Your task to perform on an android device: change the clock display to analog Image 0: 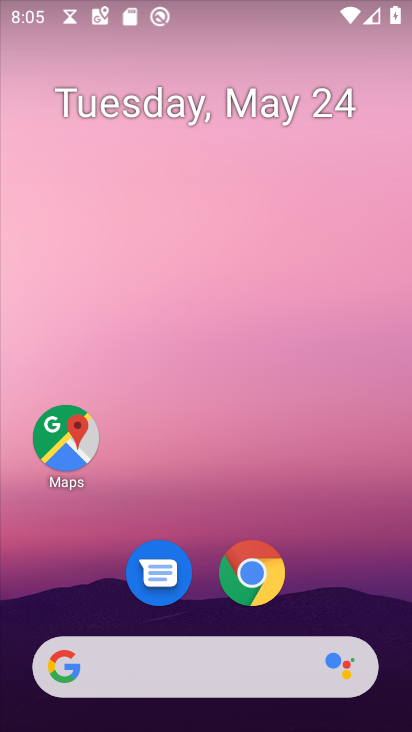
Step 0: drag from (385, 529) to (346, 101)
Your task to perform on an android device: change the clock display to analog Image 1: 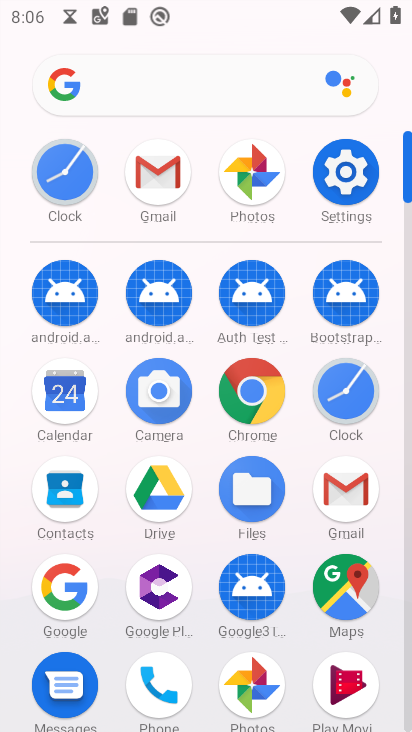
Step 1: click (352, 401)
Your task to perform on an android device: change the clock display to analog Image 2: 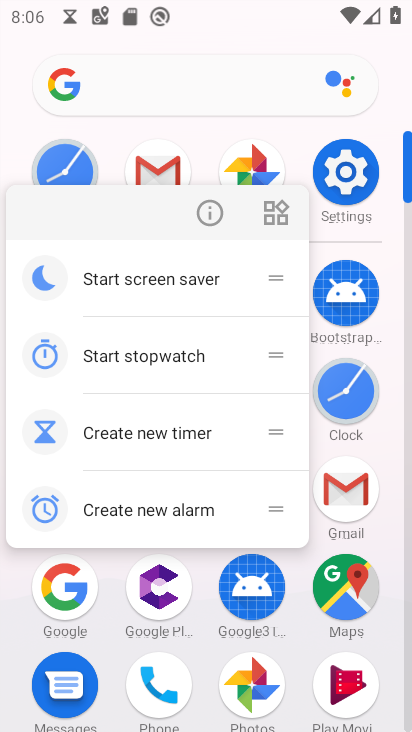
Step 2: click (352, 401)
Your task to perform on an android device: change the clock display to analog Image 3: 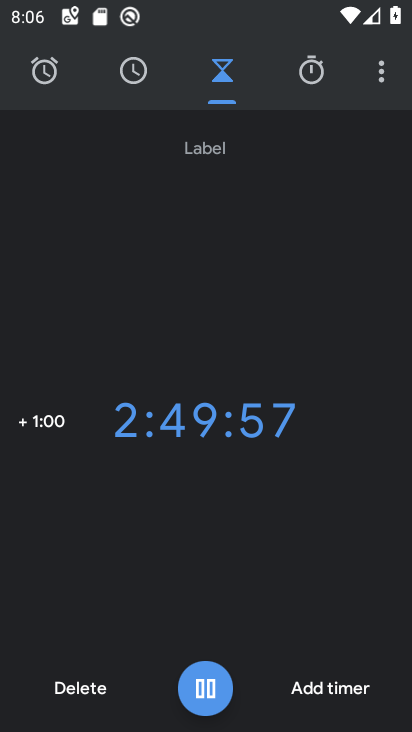
Step 3: click (395, 88)
Your task to perform on an android device: change the clock display to analog Image 4: 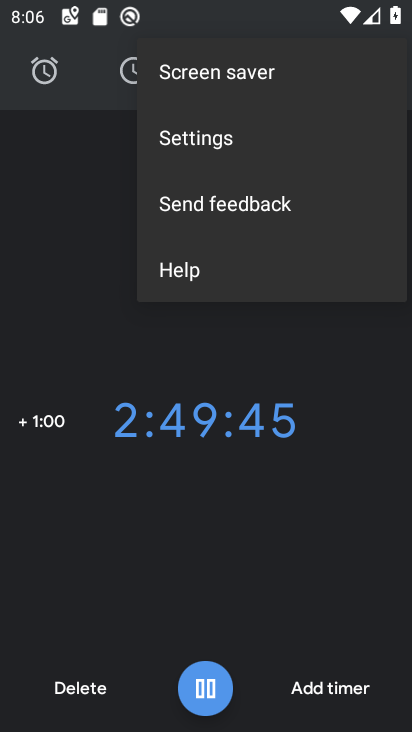
Step 4: click (219, 131)
Your task to perform on an android device: change the clock display to analog Image 5: 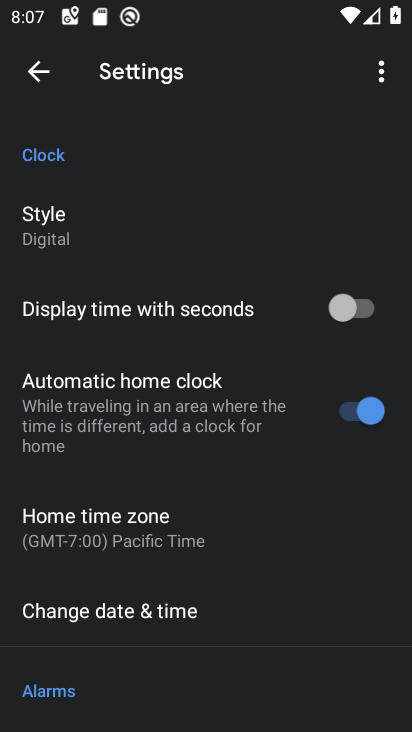
Step 5: click (86, 228)
Your task to perform on an android device: change the clock display to analog Image 6: 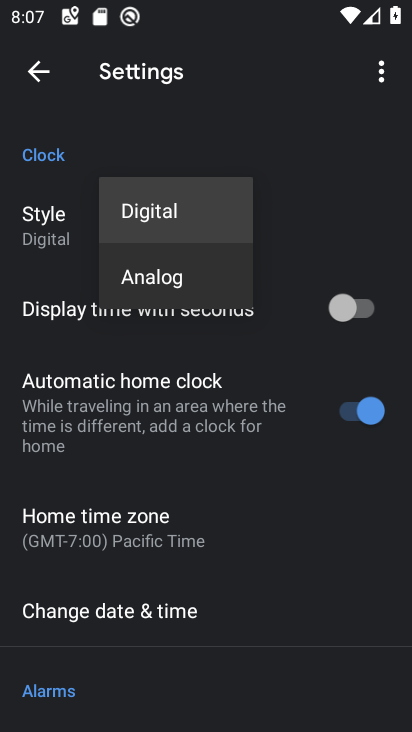
Step 6: click (120, 291)
Your task to perform on an android device: change the clock display to analog Image 7: 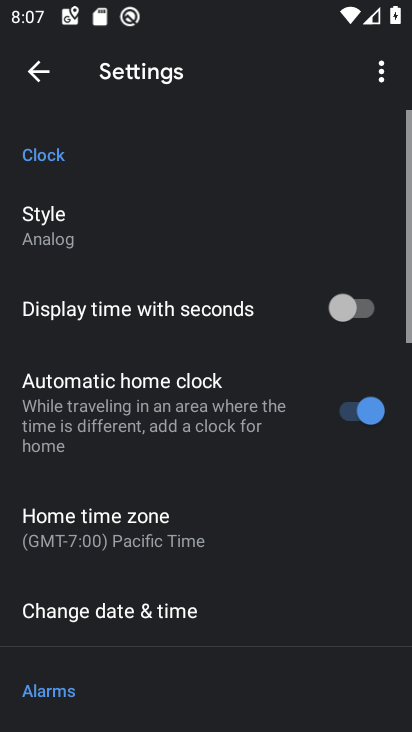
Step 7: task complete